Your task to perform on an android device: Open Google Chrome Image 0: 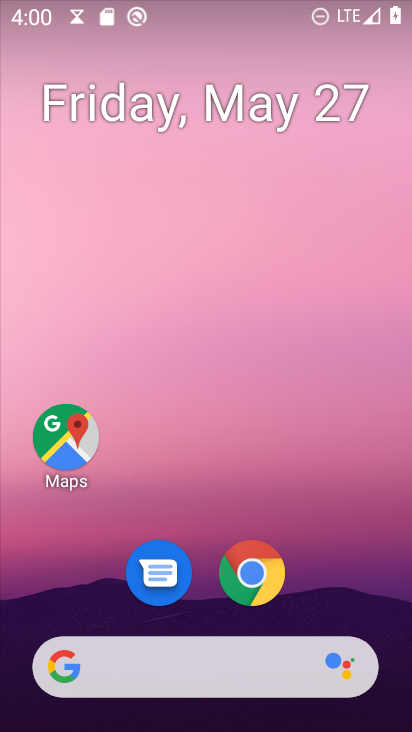
Step 0: click (249, 574)
Your task to perform on an android device: Open Google Chrome Image 1: 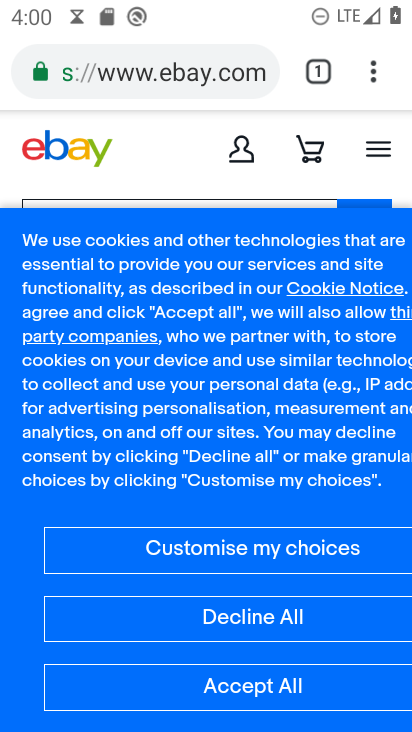
Step 1: task complete